Your task to perform on an android device: Open sound settings Image 0: 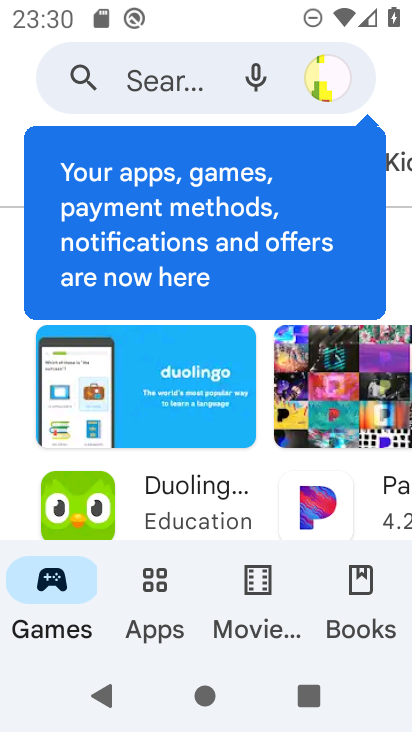
Step 0: press home button
Your task to perform on an android device: Open sound settings Image 1: 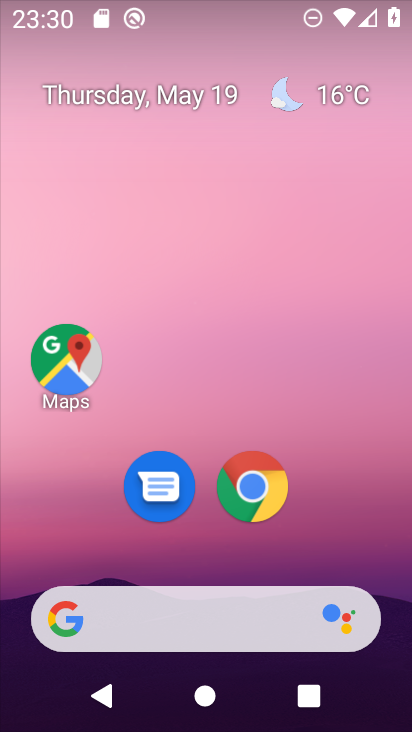
Step 1: drag from (354, 522) to (317, 152)
Your task to perform on an android device: Open sound settings Image 2: 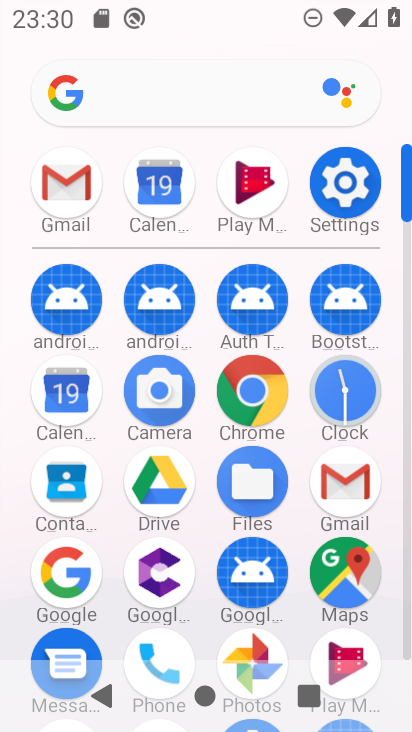
Step 2: click (362, 221)
Your task to perform on an android device: Open sound settings Image 3: 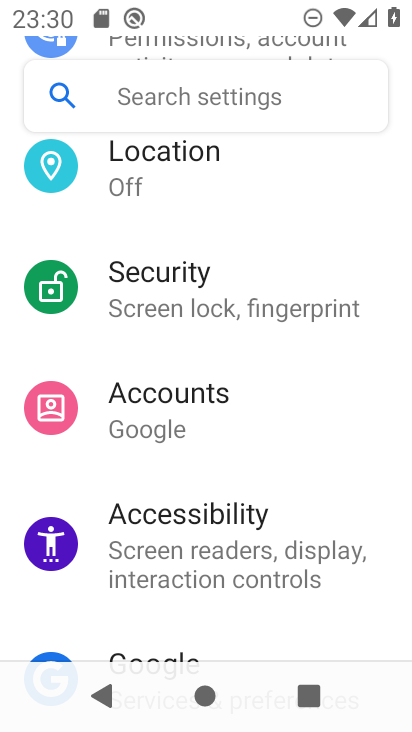
Step 3: drag from (239, 268) to (140, 689)
Your task to perform on an android device: Open sound settings Image 4: 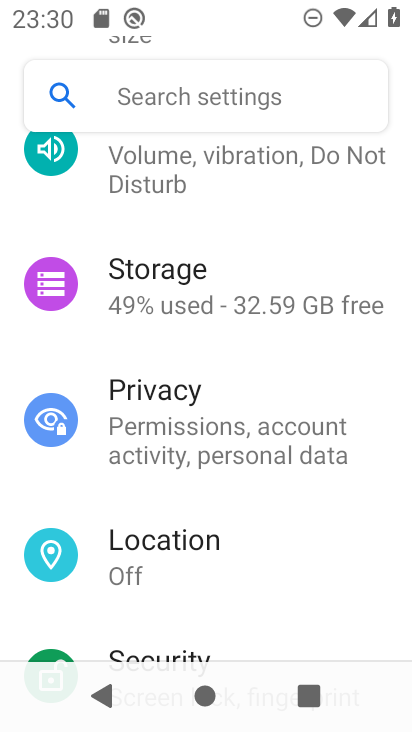
Step 4: drag from (158, 295) to (122, 731)
Your task to perform on an android device: Open sound settings Image 5: 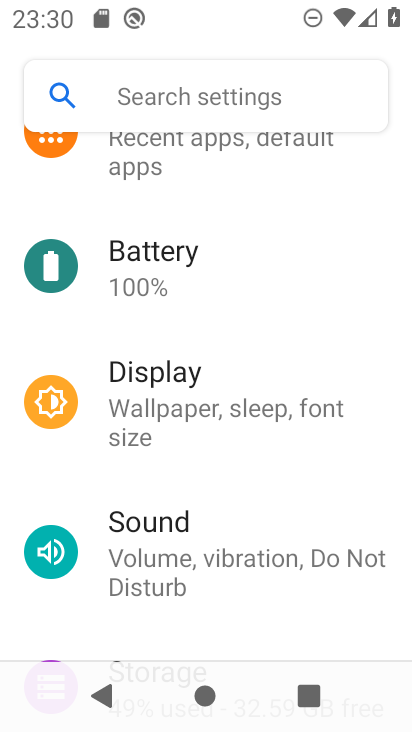
Step 5: click (147, 604)
Your task to perform on an android device: Open sound settings Image 6: 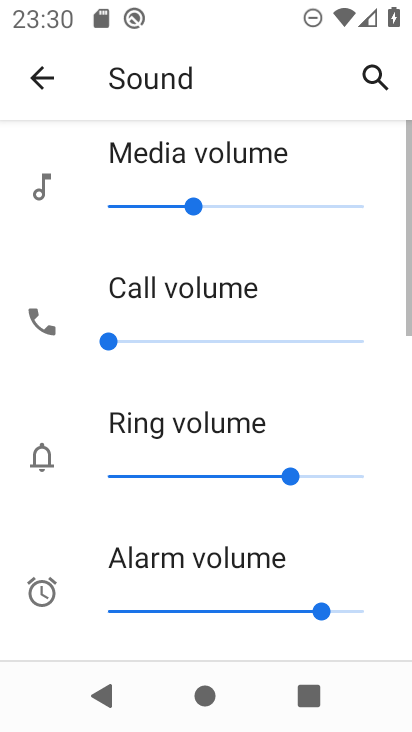
Step 6: task complete